Your task to perform on an android device: Open privacy settings Image 0: 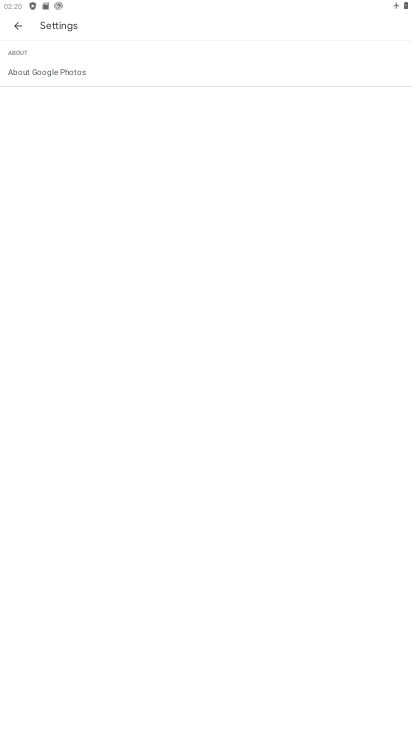
Step 0: press home button
Your task to perform on an android device: Open privacy settings Image 1: 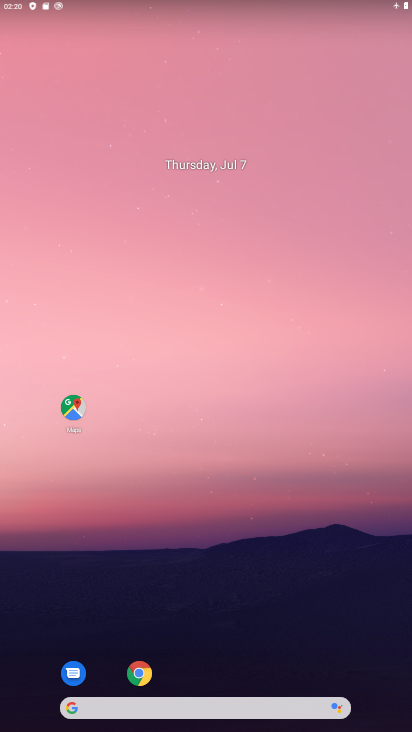
Step 1: drag from (213, 566) to (243, 204)
Your task to perform on an android device: Open privacy settings Image 2: 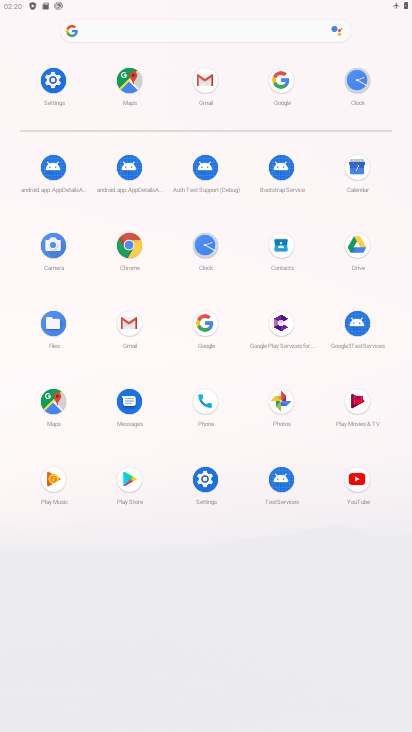
Step 2: click (38, 82)
Your task to perform on an android device: Open privacy settings Image 3: 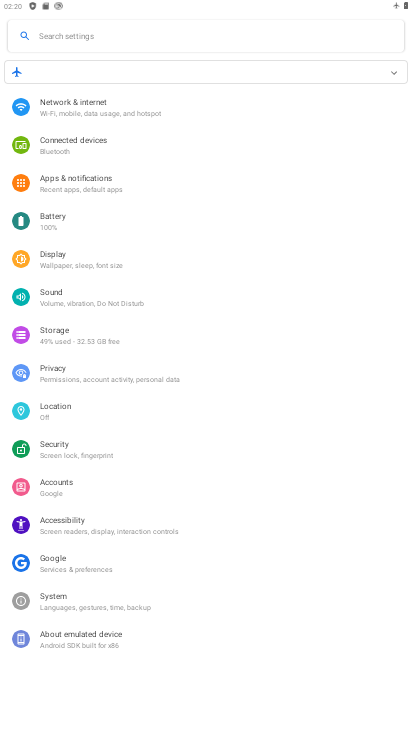
Step 3: click (94, 374)
Your task to perform on an android device: Open privacy settings Image 4: 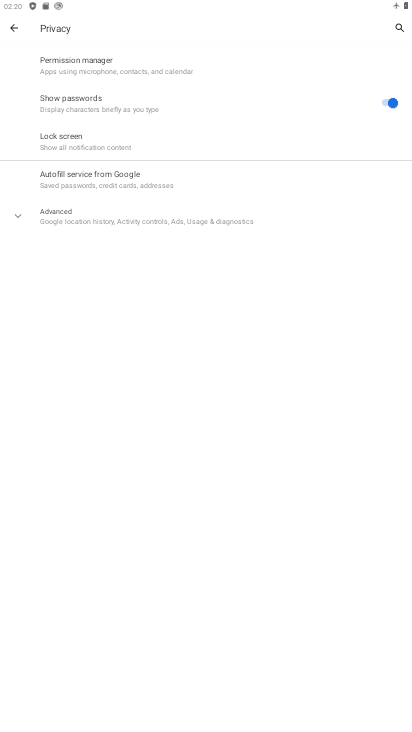
Step 4: task complete